Your task to perform on an android device: toggle notification dots Image 0: 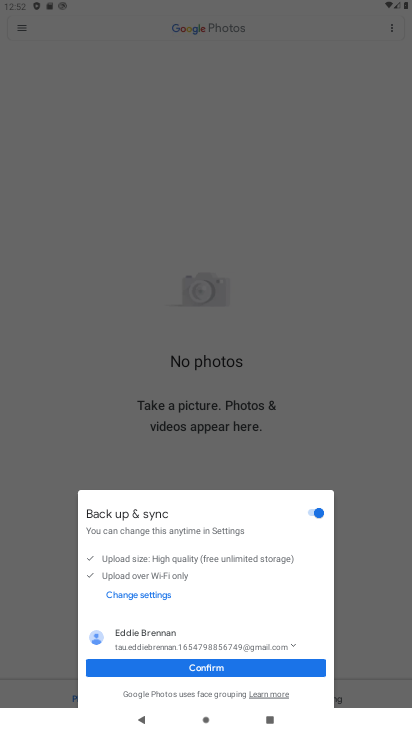
Step 0: press home button
Your task to perform on an android device: toggle notification dots Image 1: 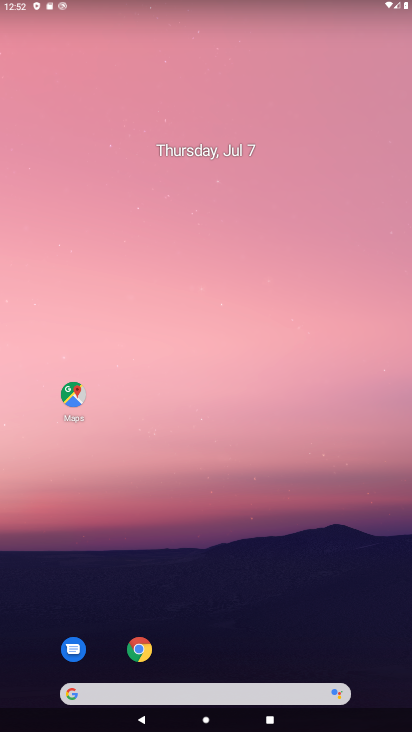
Step 1: drag from (241, 555) to (261, 85)
Your task to perform on an android device: toggle notification dots Image 2: 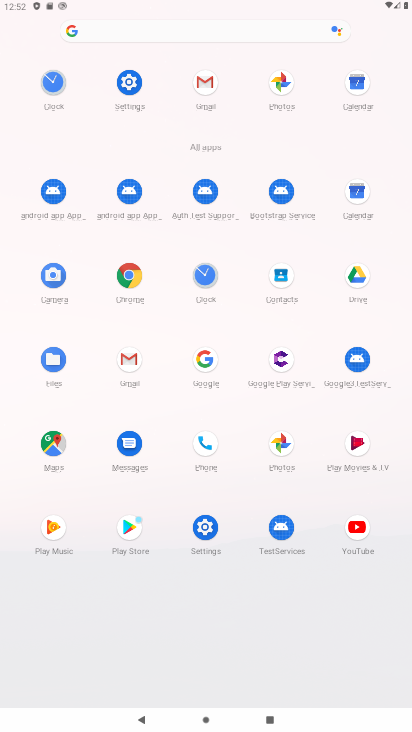
Step 2: click (138, 84)
Your task to perform on an android device: toggle notification dots Image 3: 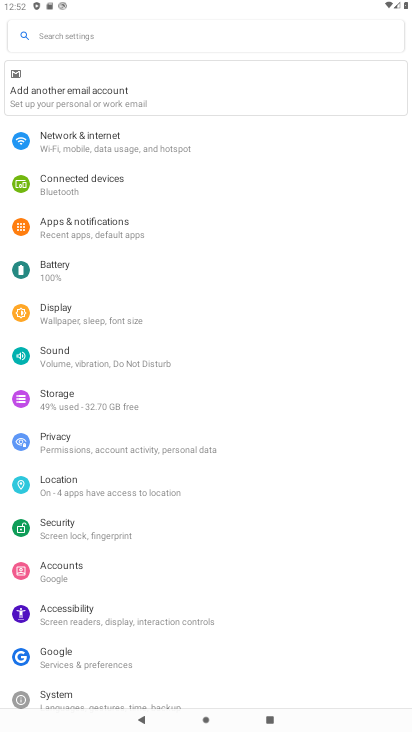
Step 3: click (104, 221)
Your task to perform on an android device: toggle notification dots Image 4: 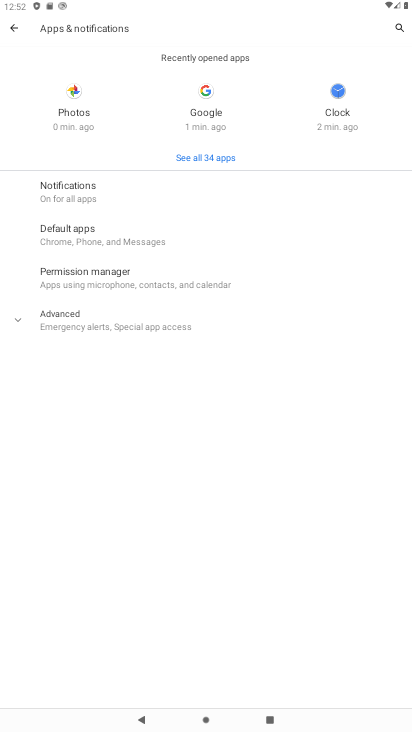
Step 4: click (76, 197)
Your task to perform on an android device: toggle notification dots Image 5: 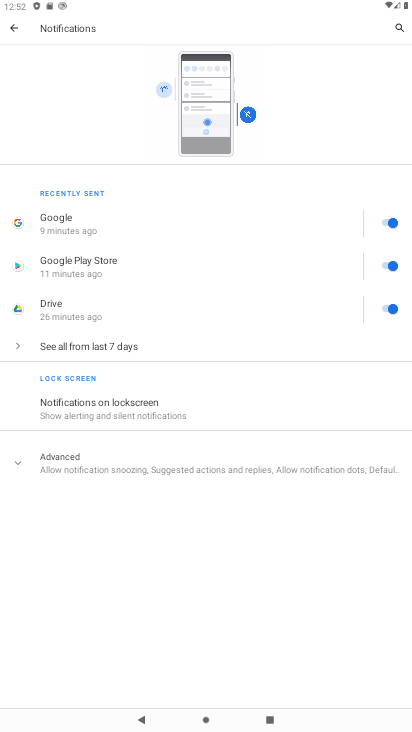
Step 5: click (94, 468)
Your task to perform on an android device: toggle notification dots Image 6: 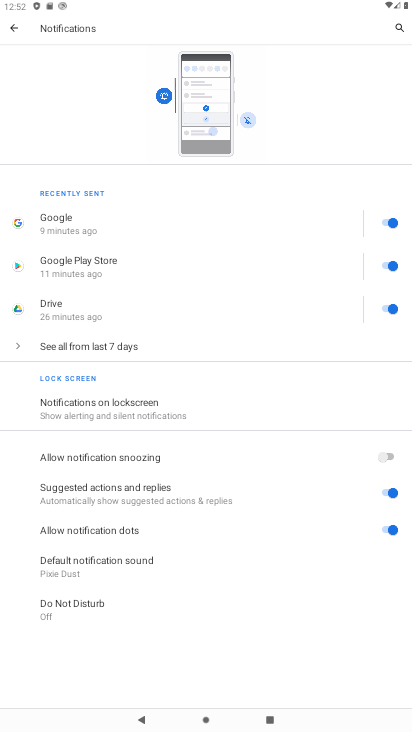
Step 6: click (396, 527)
Your task to perform on an android device: toggle notification dots Image 7: 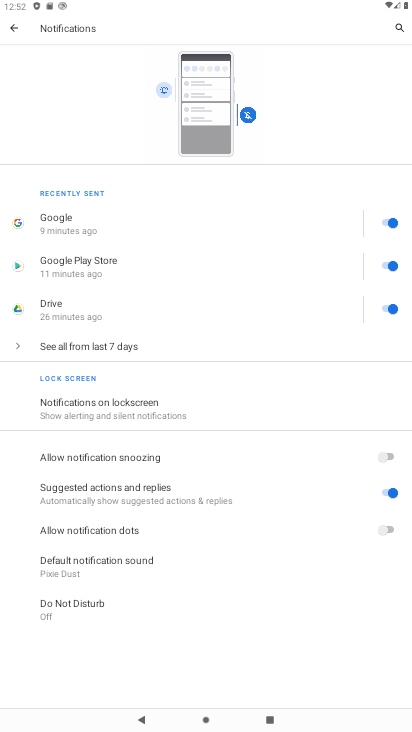
Step 7: task complete